Your task to perform on an android device: Open the Play Movies app and select the watchlist tab. Image 0: 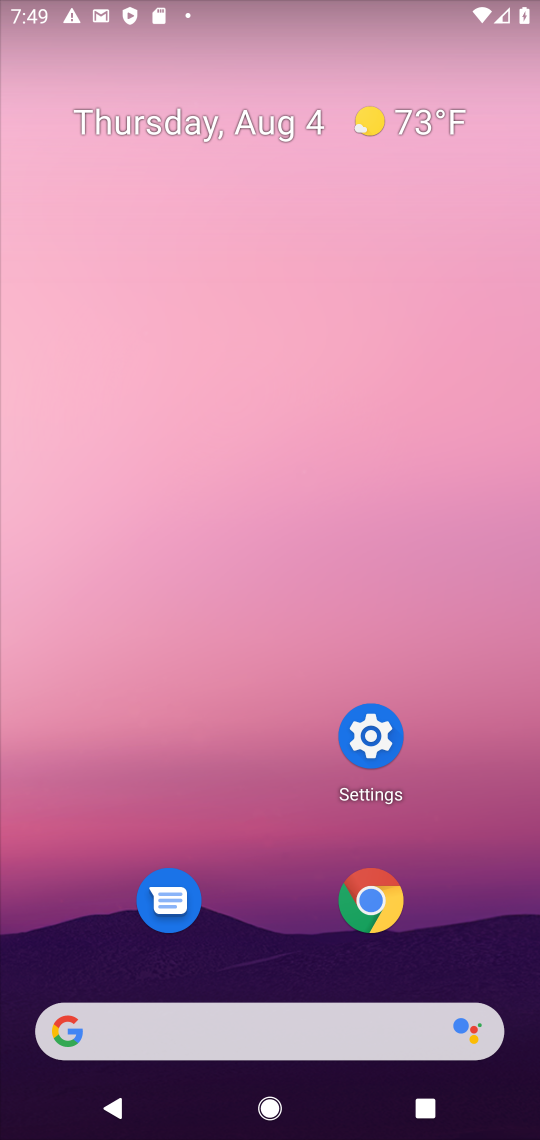
Step 0: drag from (187, 1013) to (288, 277)
Your task to perform on an android device: Open the Play Movies app and select the watchlist tab. Image 1: 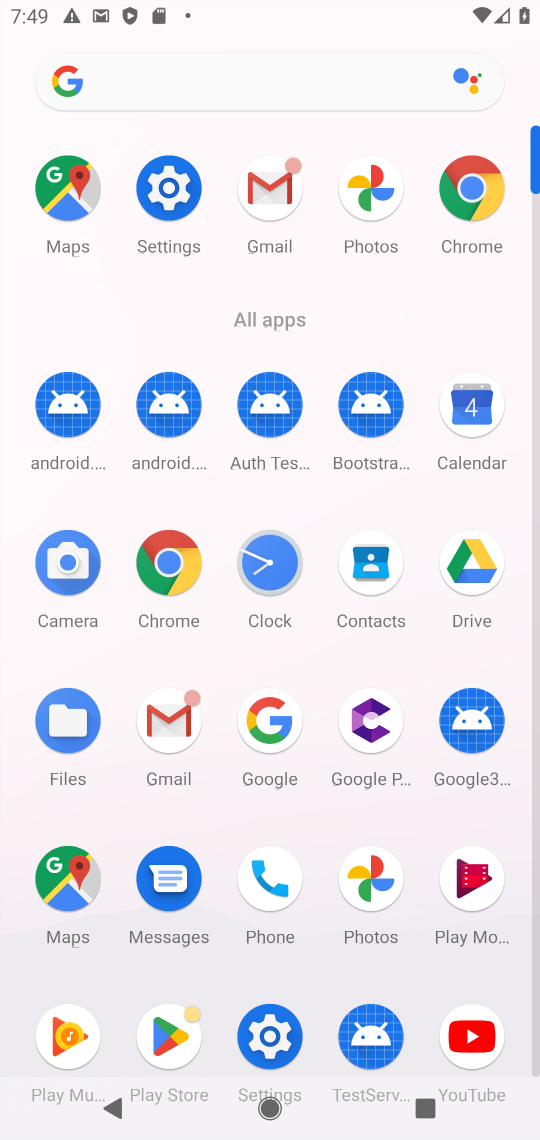
Step 1: click (471, 884)
Your task to perform on an android device: Open the Play Movies app and select the watchlist tab. Image 2: 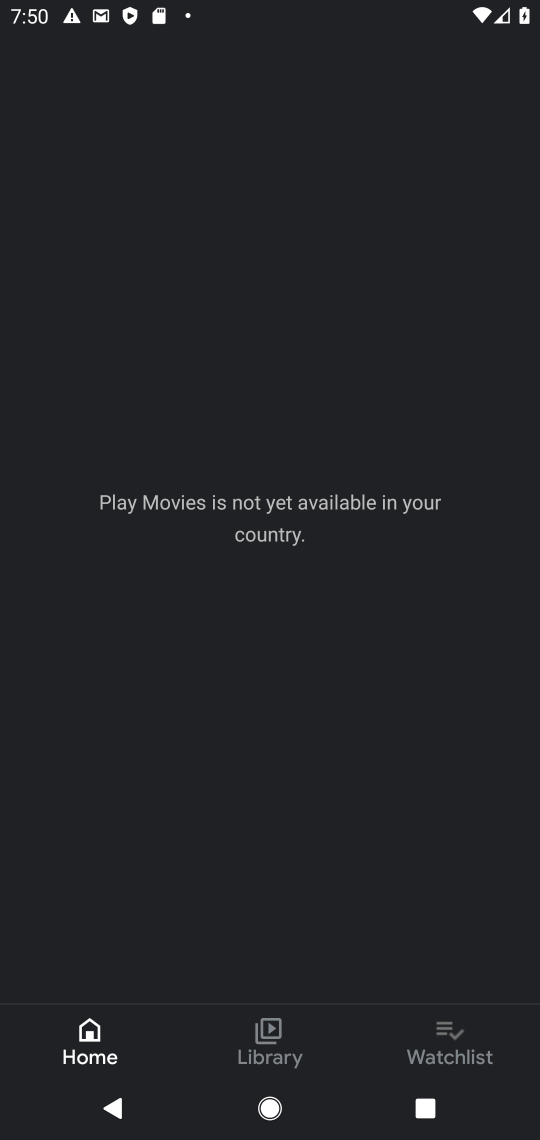
Step 2: click (459, 1037)
Your task to perform on an android device: Open the Play Movies app and select the watchlist tab. Image 3: 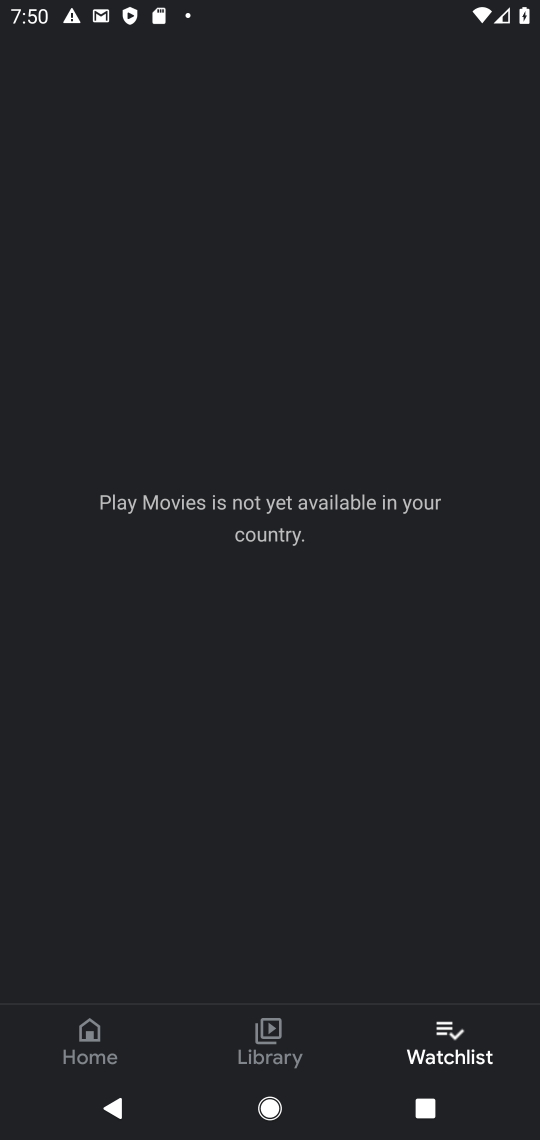
Step 3: task complete